Your task to perform on an android device: Add "macbook pro 13 inch" to the cart on amazon Image 0: 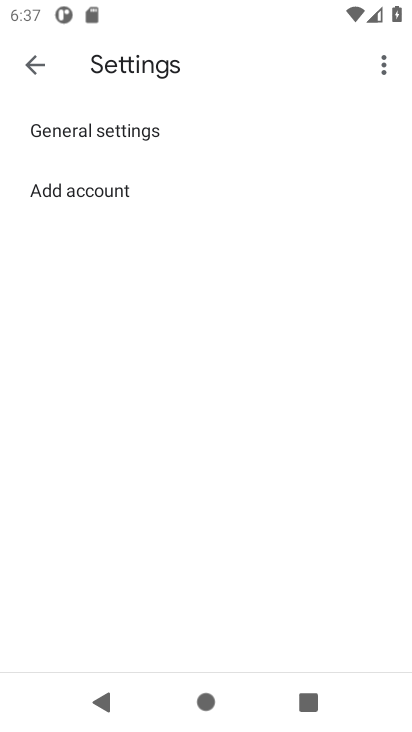
Step 0: press home button
Your task to perform on an android device: Add "macbook pro 13 inch" to the cart on amazon Image 1: 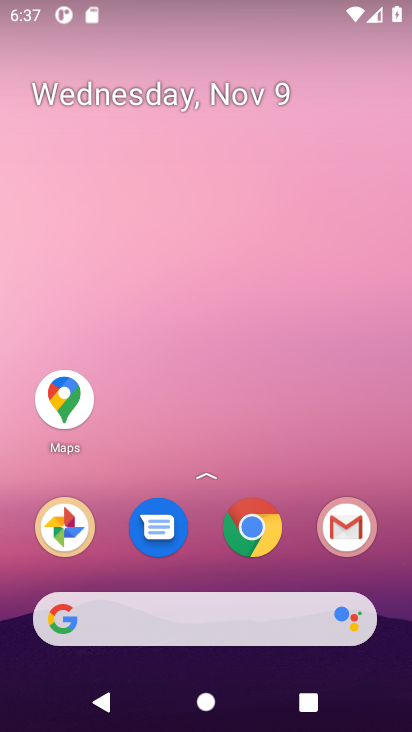
Step 1: click (201, 489)
Your task to perform on an android device: Add "macbook pro 13 inch" to the cart on amazon Image 2: 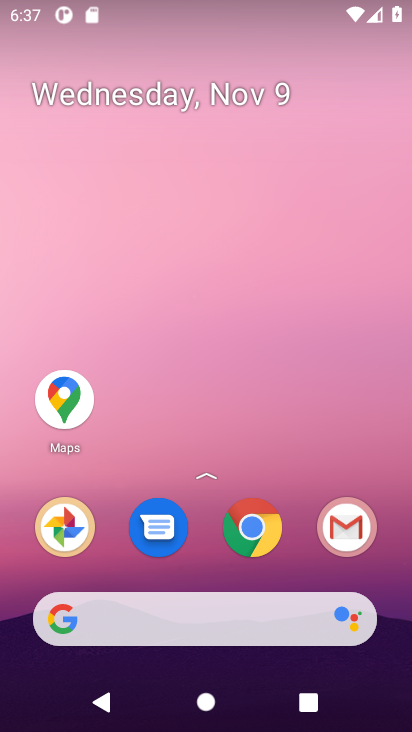
Step 2: click (252, 520)
Your task to perform on an android device: Add "macbook pro 13 inch" to the cart on amazon Image 3: 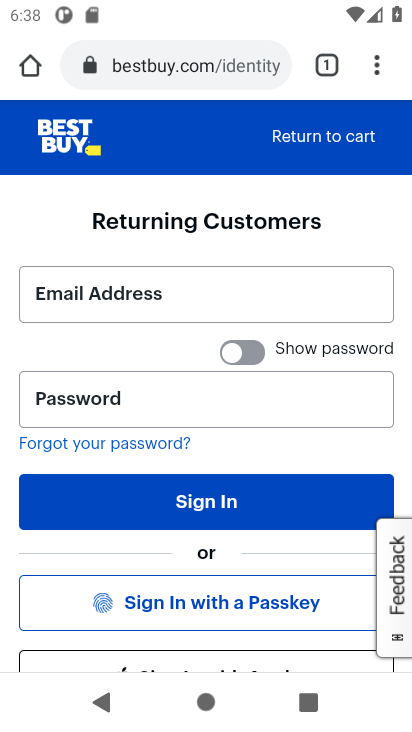
Step 3: click (133, 64)
Your task to perform on an android device: Add "macbook pro 13 inch" to the cart on amazon Image 4: 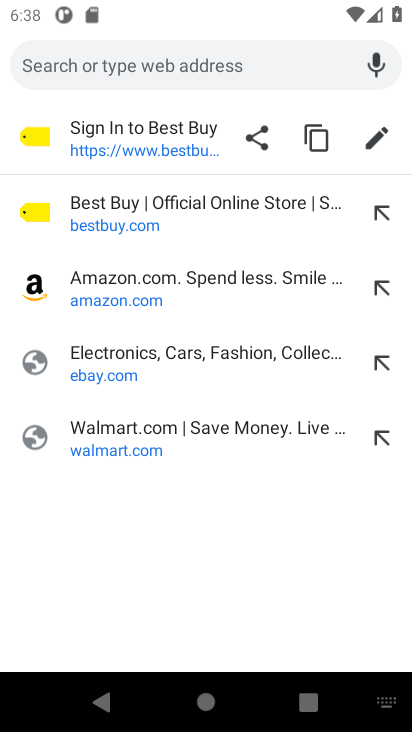
Step 4: click (115, 292)
Your task to perform on an android device: Add "macbook pro 13 inch" to the cart on amazon Image 5: 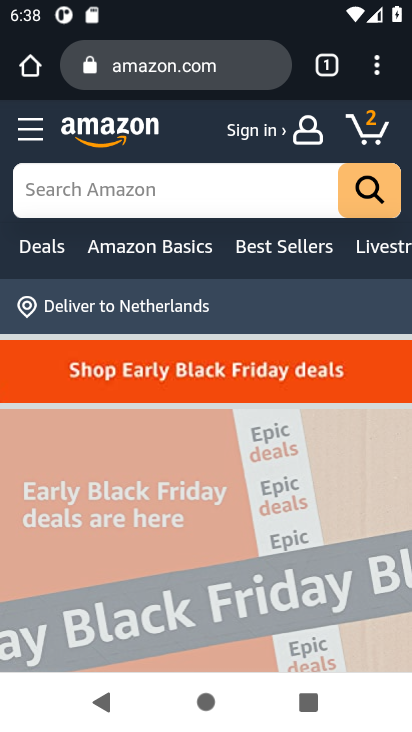
Step 5: click (88, 184)
Your task to perform on an android device: Add "macbook pro 13 inch" to the cart on amazon Image 6: 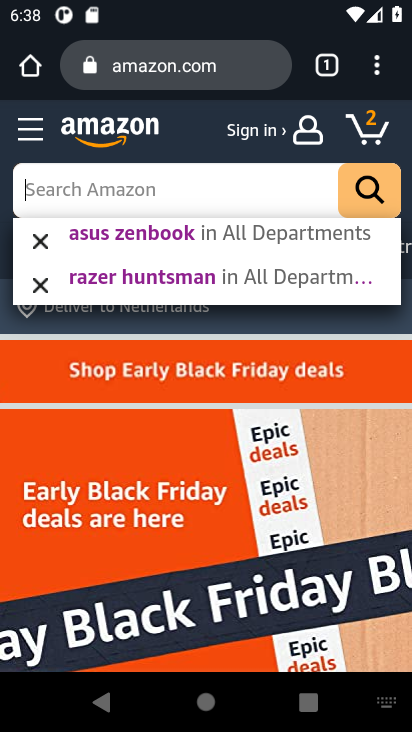
Step 6: type "macbook pro 13 inch"
Your task to perform on an android device: Add "macbook pro 13 inch" to the cart on amazon Image 7: 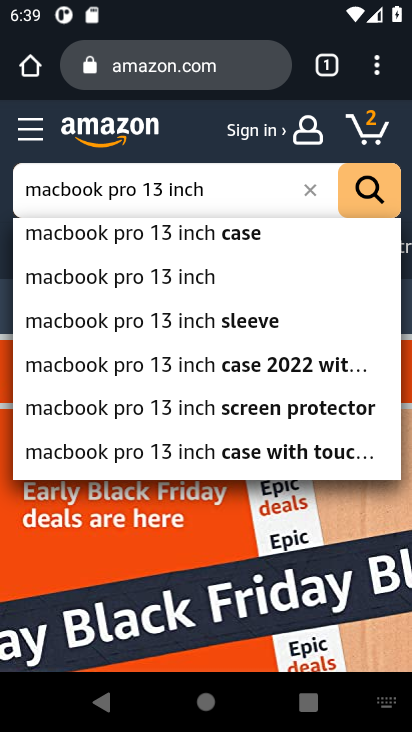
Step 7: click (218, 275)
Your task to perform on an android device: Add "macbook pro 13 inch" to the cart on amazon Image 8: 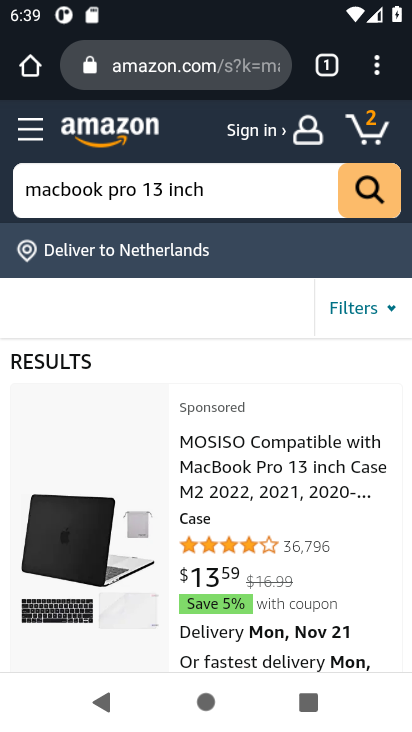
Step 8: click (214, 465)
Your task to perform on an android device: Add "macbook pro 13 inch" to the cart on amazon Image 9: 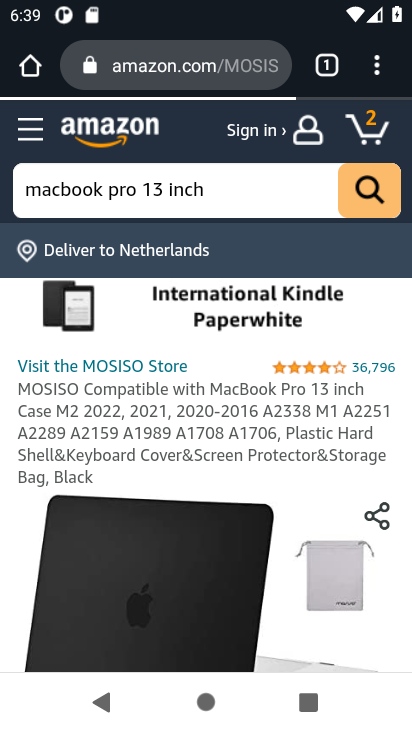
Step 9: drag from (246, 480) to (231, 197)
Your task to perform on an android device: Add "macbook pro 13 inch" to the cart on amazon Image 10: 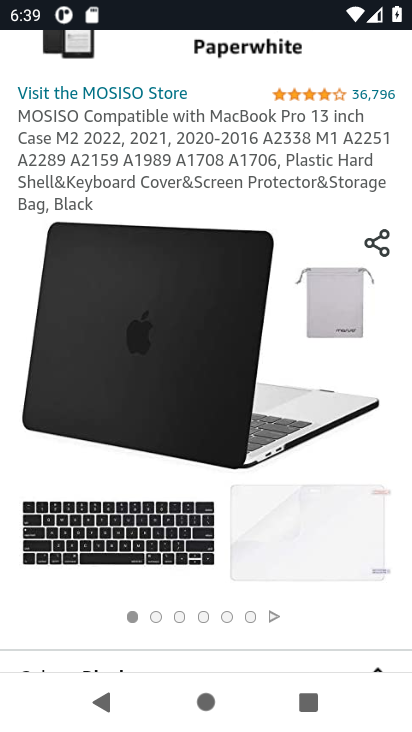
Step 10: drag from (230, 609) to (248, 197)
Your task to perform on an android device: Add "macbook pro 13 inch" to the cart on amazon Image 11: 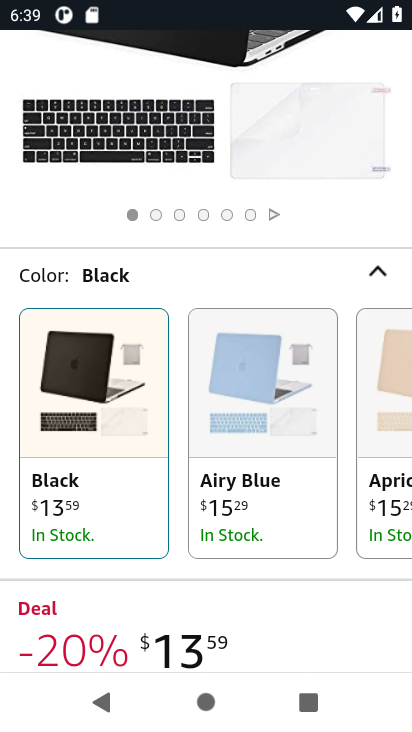
Step 11: drag from (244, 639) to (244, 222)
Your task to perform on an android device: Add "macbook pro 13 inch" to the cart on amazon Image 12: 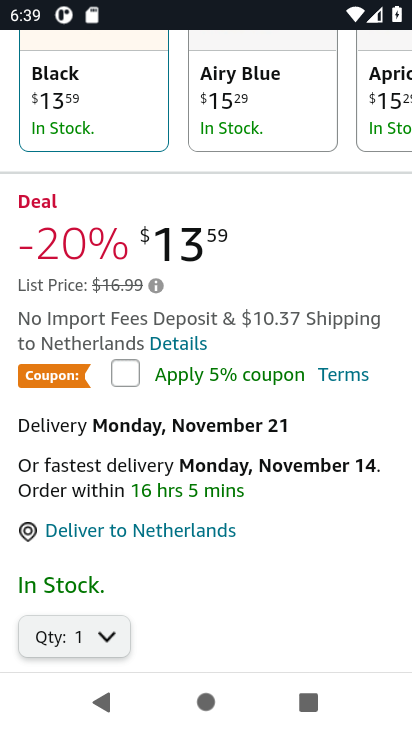
Step 12: drag from (229, 627) to (259, 201)
Your task to perform on an android device: Add "macbook pro 13 inch" to the cart on amazon Image 13: 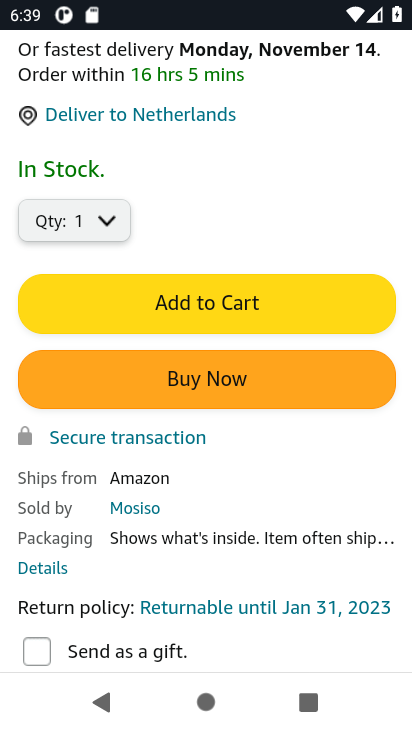
Step 13: click (199, 302)
Your task to perform on an android device: Add "macbook pro 13 inch" to the cart on amazon Image 14: 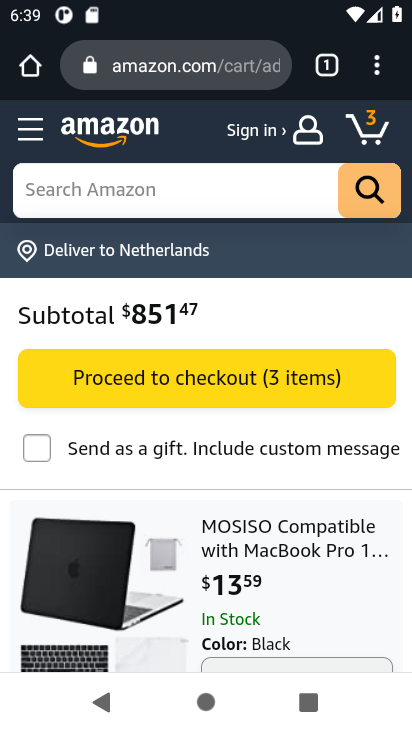
Step 14: click (195, 365)
Your task to perform on an android device: Add "macbook pro 13 inch" to the cart on amazon Image 15: 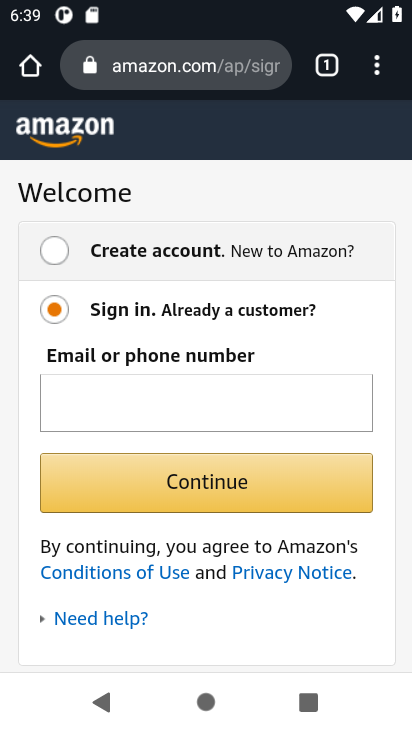
Step 15: task complete